Your task to perform on an android device: Search for Mexican restaurants on Maps Image 0: 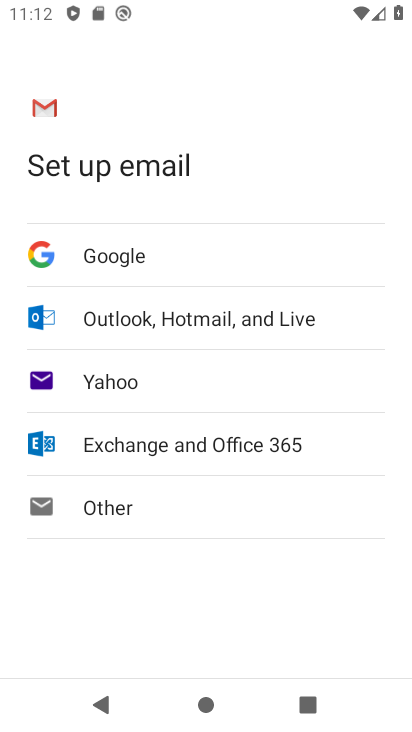
Step 0: press home button
Your task to perform on an android device: Search for Mexican restaurants on Maps Image 1: 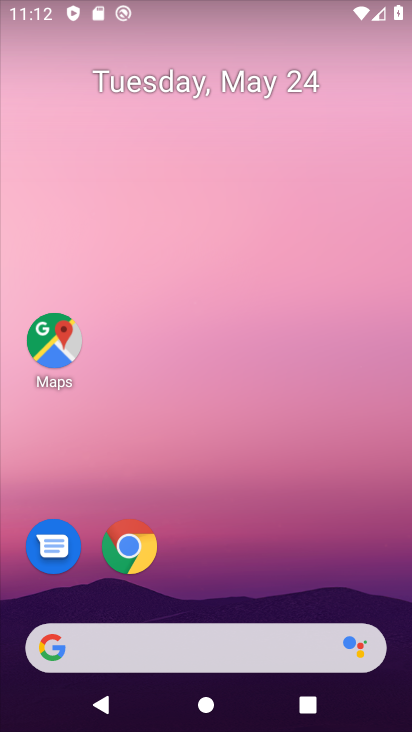
Step 1: click (68, 361)
Your task to perform on an android device: Search for Mexican restaurants on Maps Image 2: 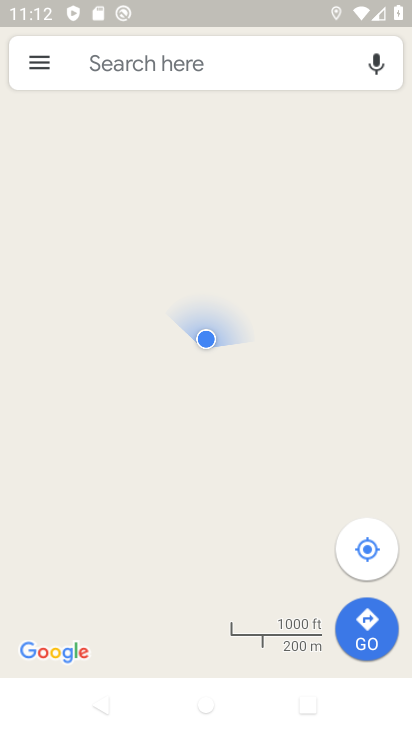
Step 2: click (169, 77)
Your task to perform on an android device: Search for Mexican restaurants on Maps Image 3: 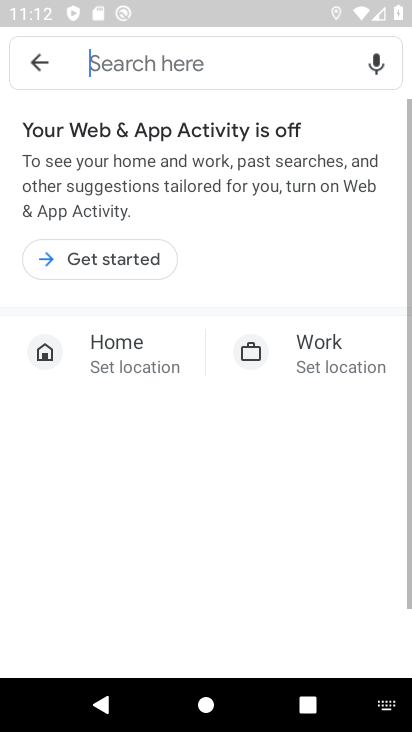
Step 3: click (180, 60)
Your task to perform on an android device: Search for Mexican restaurants on Maps Image 4: 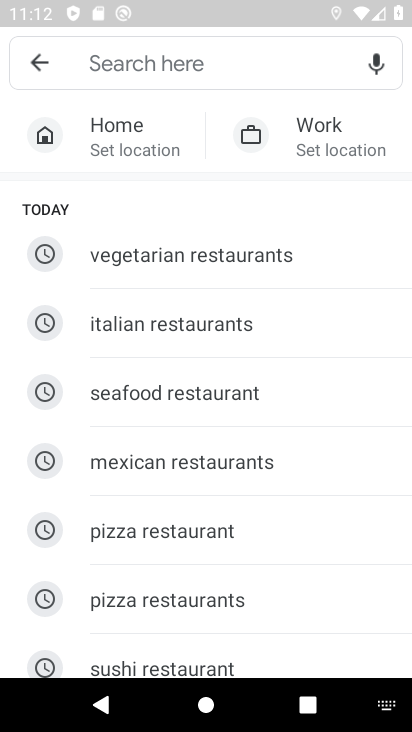
Step 4: click (269, 467)
Your task to perform on an android device: Search for Mexican restaurants on Maps Image 5: 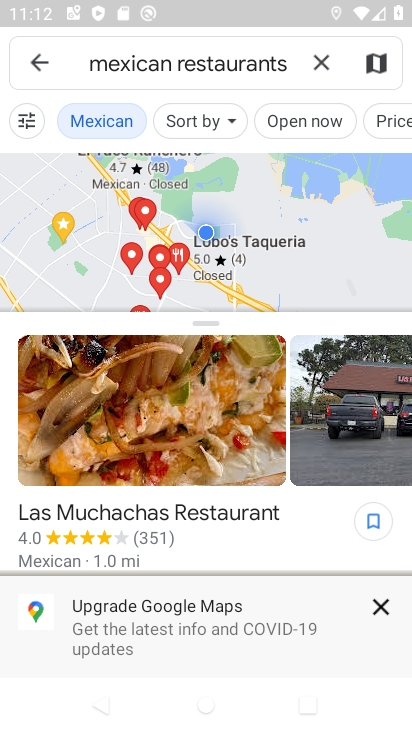
Step 5: task complete